Your task to perform on an android device: Open Google Image 0: 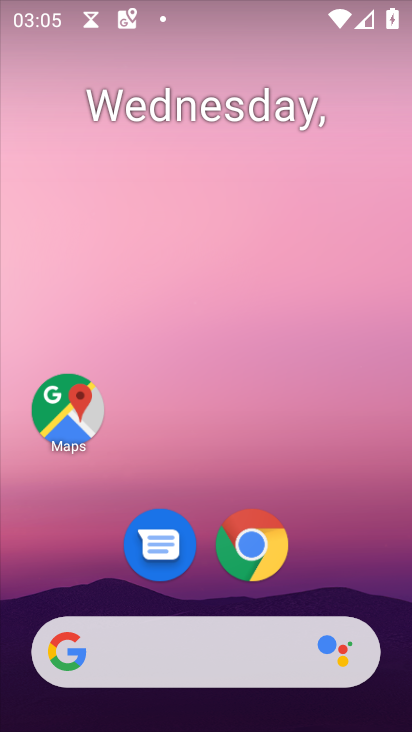
Step 0: press home button
Your task to perform on an android device: Open Google Image 1: 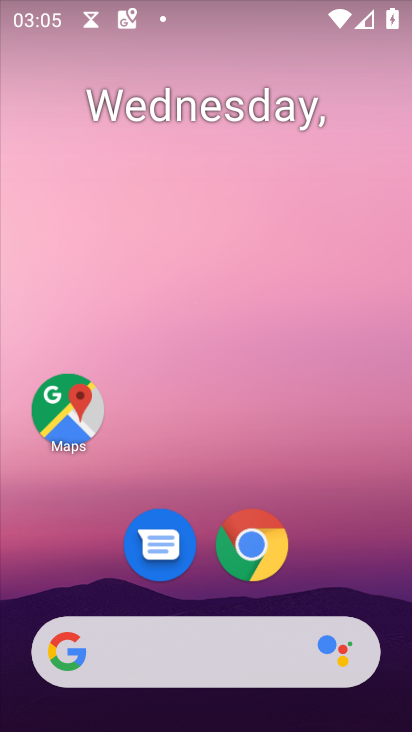
Step 1: drag from (175, 658) to (305, 152)
Your task to perform on an android device: Open Google Image 2: 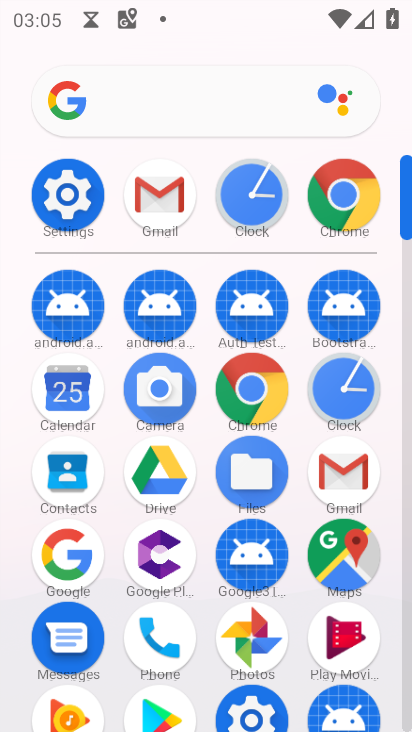
Step 2: click (78, 557)
Your task to perform on an android device: Open Google Image 3: 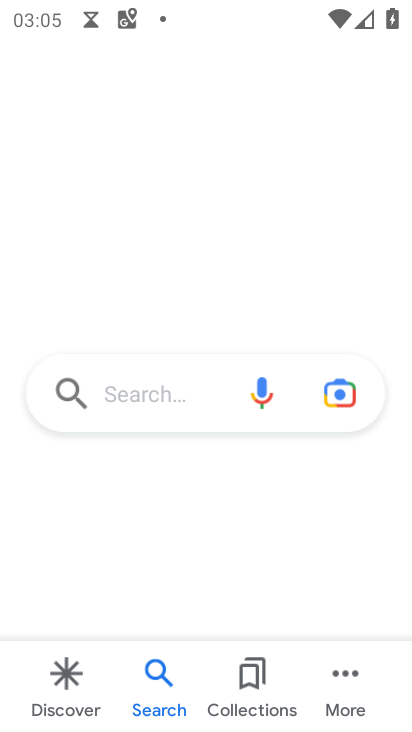
Step 3: task complete